Your task to perform on an android device: Search for Mexican restaurants on Maps Image 0: 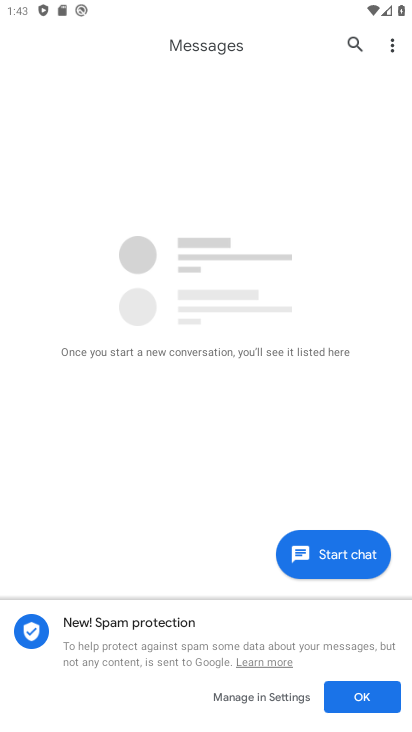
Step 0: press back button
Your task to perform on an android device: Search for Mexican restaurants on Maps Image 1: 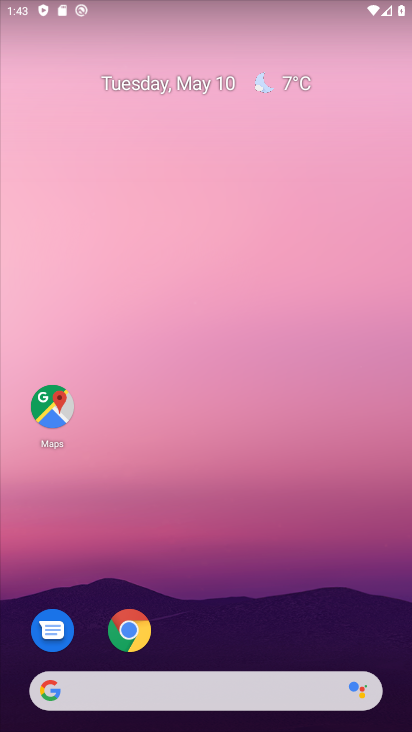
Step 1: drag from (226, 615) to (220, 75)
Your task to perform on an android device: Search for Mexican restaurants on Maps Image 2: 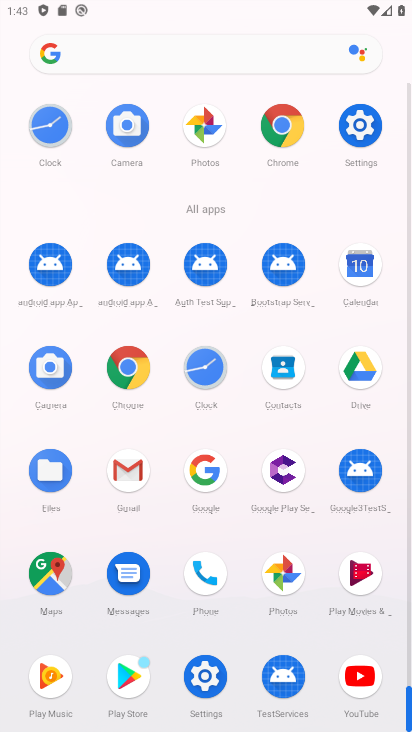
Step 2: click (41, 572)
Your task to perform on an android device: Search for Mexican restaurants on Maps Image 3: 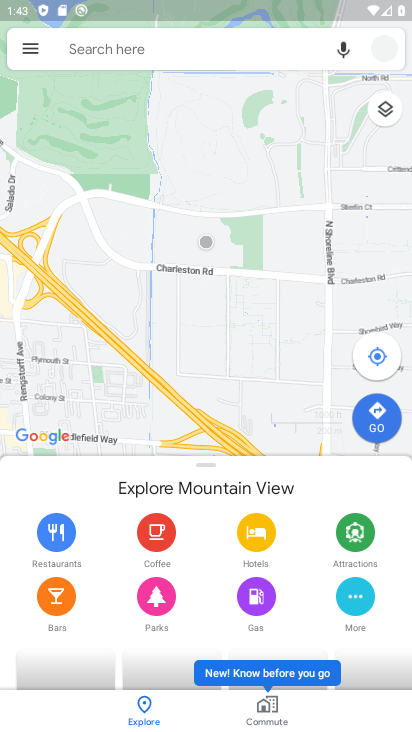
Step 3: click (205, 48)
Your task to perform on an android device: Search for Mexican restaurants on Maps Image 4: 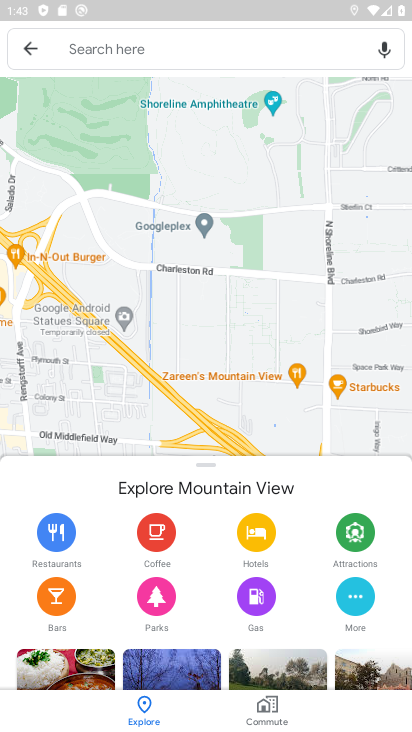
Step 4: click (205, 48)
Your task to perform on an android device: Search for Mexican restaurants on Maps Image 5: 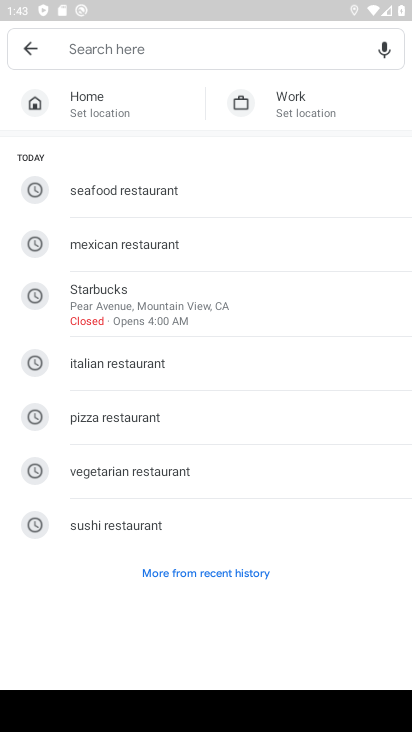
Step 5: click (151, 251)
Your task to perform on an android device: Search for Mexican restaurants on Maps Image 6: 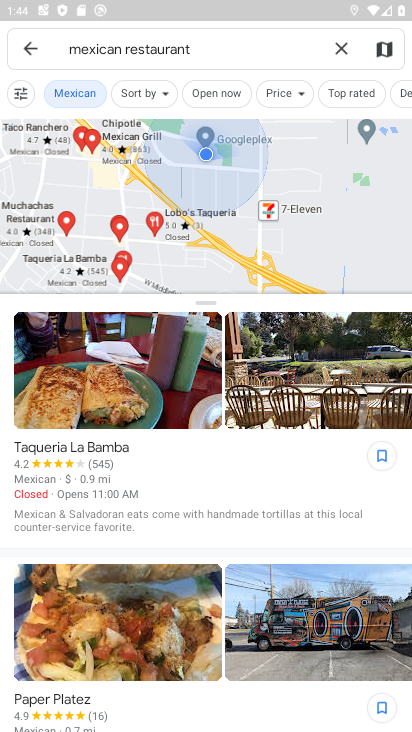
Step 6: task complete